Your task to perform on an android device: turn off improve location accuracy Image 0: 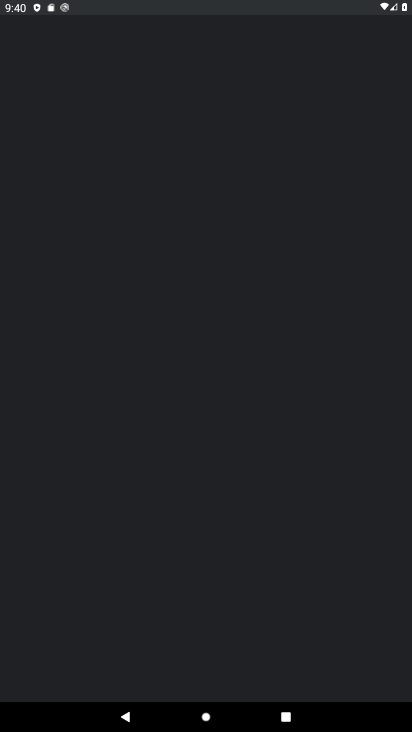
Step 0: press home button
Your task to perform on an android device: turn off improve location accuracy Image 1: 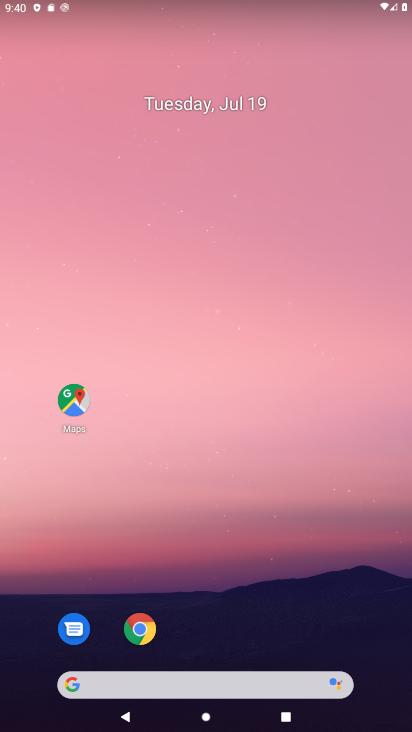
Step 1: drag from (198, 641) to (284, 11)
Your task to perform on an android device: turn off improve location accuracy Image 2: 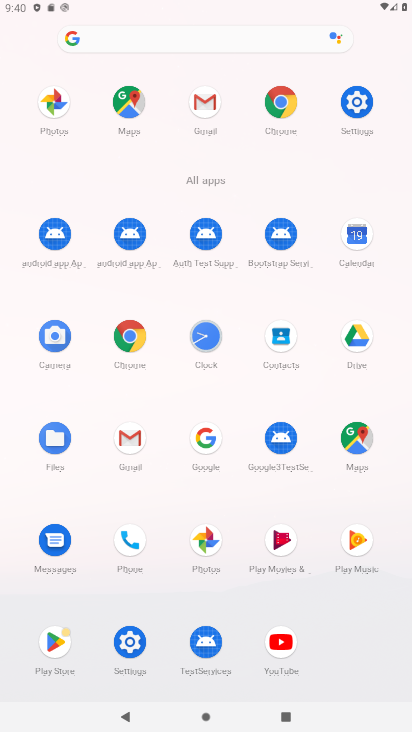
Step 2: click (135, 657)
Your task to perform on an android device: turn off improve location accuracy Image 3: 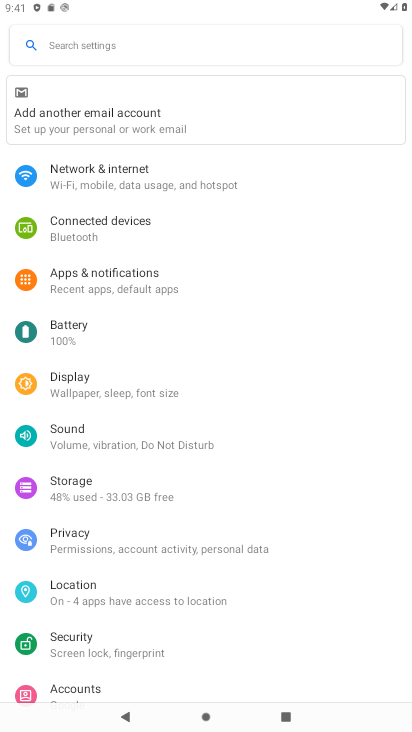
Step 3: click (123, 594)
Your task to perform on an android device: turn off improve location accuracy Image 4: 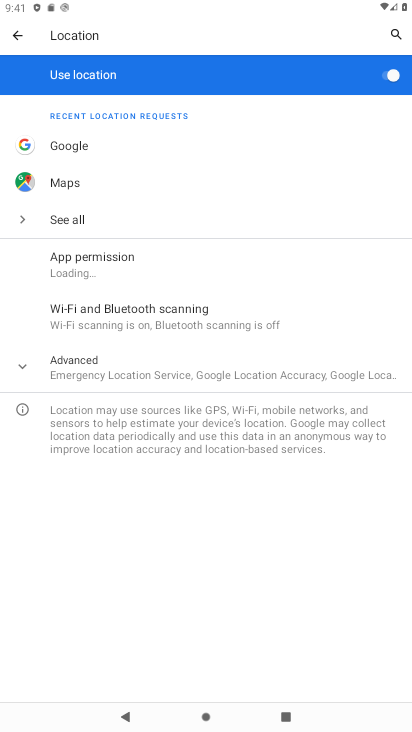
Step 4: click (145, 377)
Your task to perform on an android device: turn off improve location accuracy Image 5: 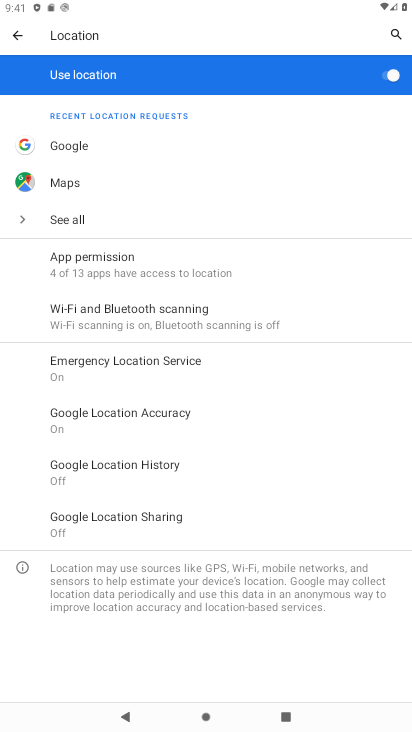
Step 5: click (156, 415)
Your task to perform on an android device: turn off improve location accuracy Image 6: 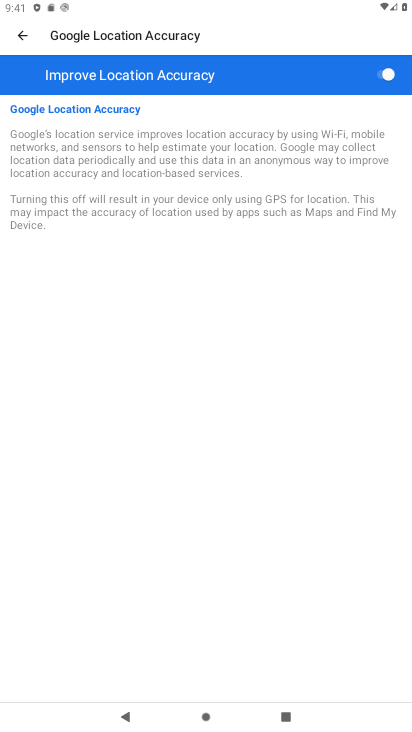
Step 6: click (341, 83)
Your task to perform on an android device: turn off improve location accuracy Image 7: 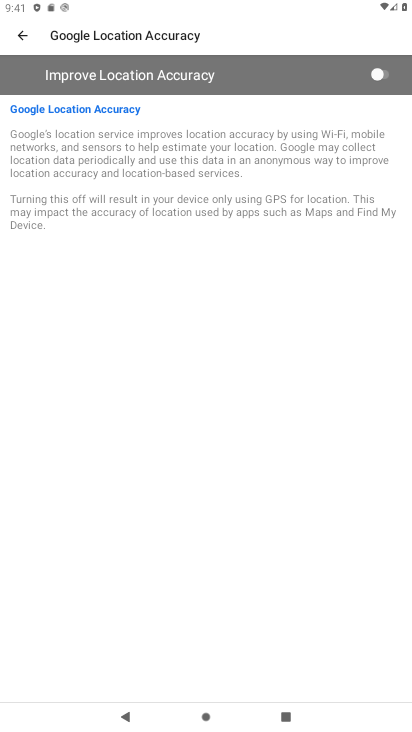
Step 7: task complete